Your task to perform on an android device: toggle sleep mode Image 0: 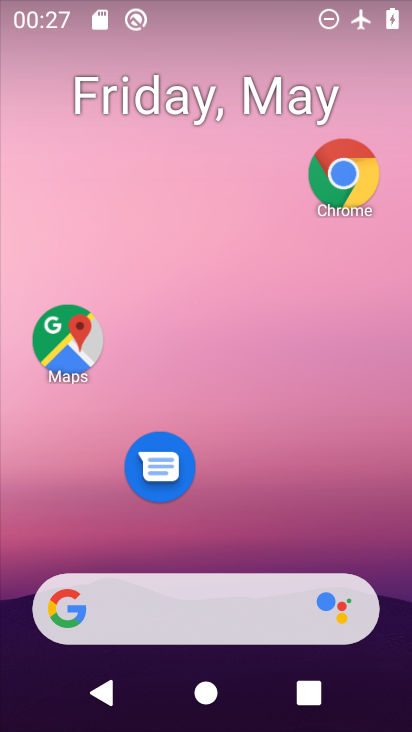
Step 0: drag from (236, 514) to (254, 146)
Your task to perform on an android device: toggle sleep mode Image 1: 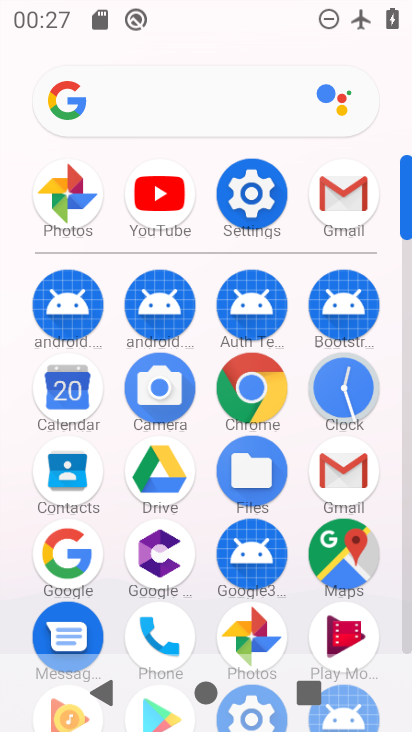
Step 1: click (253, 165)
Your task to perform on an android device: toggle sleep mode Image 2: 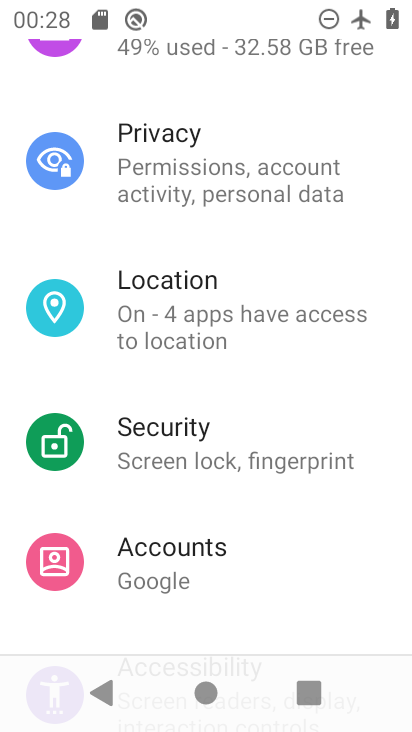
Step 2: task complete